Your task to perform on an android device: turn off data saver in the chrome app Image 0: 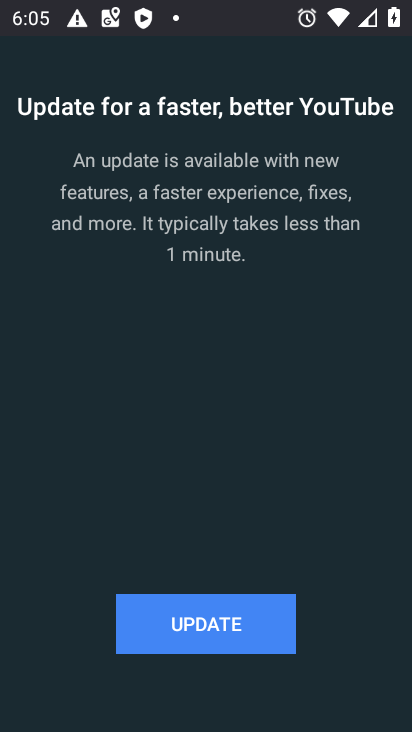
Step 0: press home button
Your task to perform on an android device: turn off data saver in the chrome app Image 1: 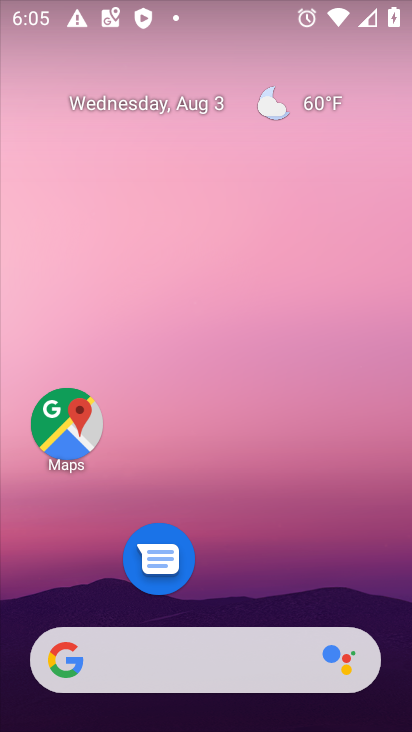
Step 1: drag from (205, 643) to (197, 341)
Your task to perform on an android device: turn off data saver in the chrome app Image 2: 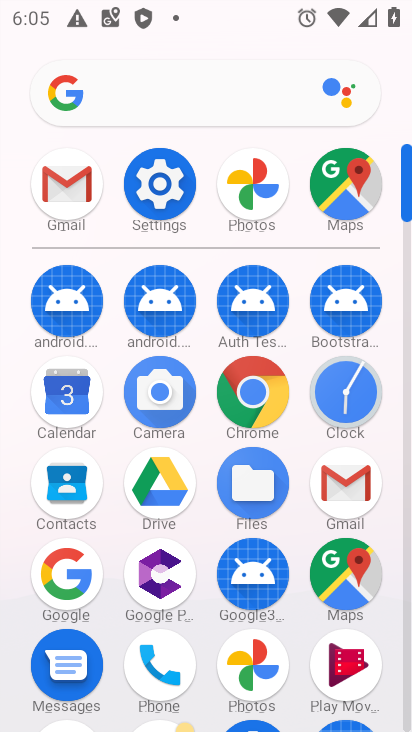
Step 2: click (257, 399)
Your task to perform on an android device: turn off data saver in the chrome app Image 3: 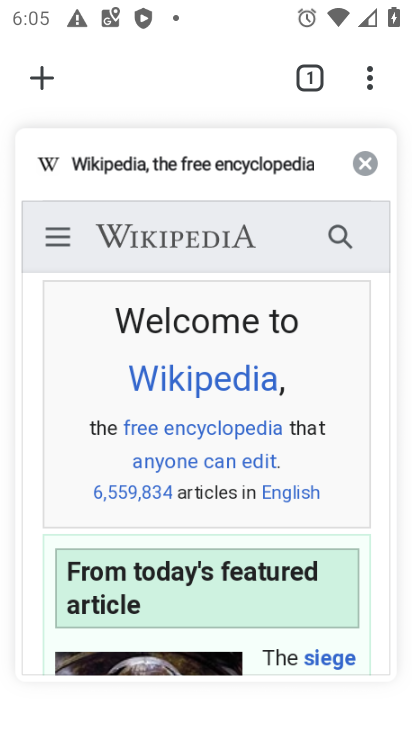
Step 3: click (372, 77)
Your task to perform on an android device: turn off data saver in the chrome app Image 4: 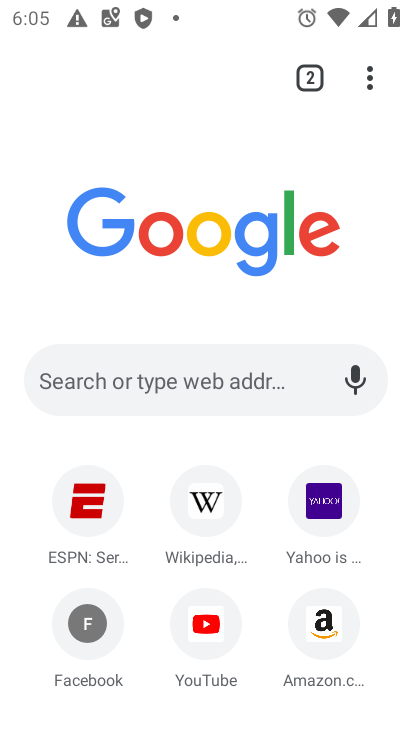
Step 4: click (377, 81)
Your task to perform on an android device: turn off data saver in the chrome app Image 5: 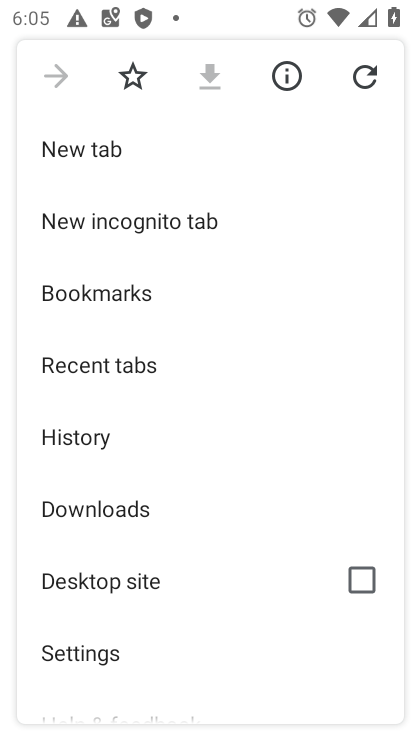
Step 5: click (92, 649)
Your task to perform on an android device: turn off data saver in the chrome app Image 6: 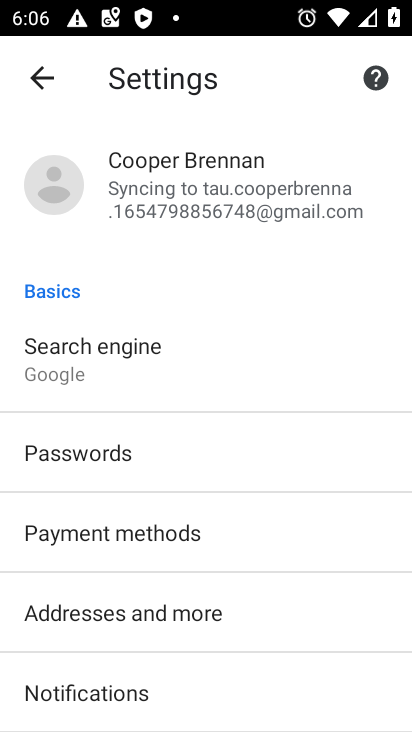
Step 6: drag from (148, 704) to (150, 206)
Your task to perform on an android device: turn off data saver in the chrome app Image 7: 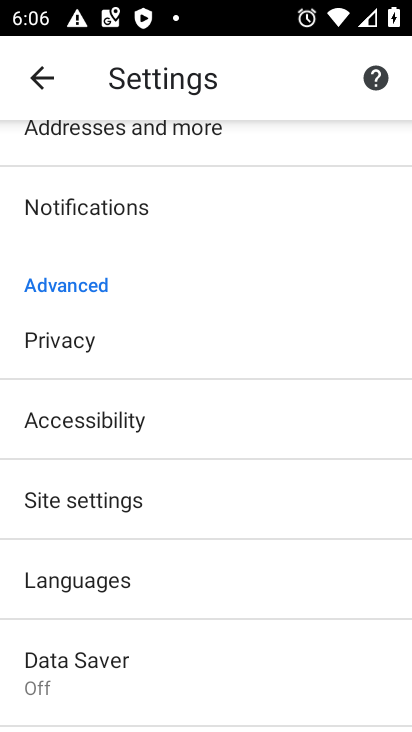
Step 7: click (75, 672)
Your task to perform on an android device: turn off data saver in the chrome app Image 8: 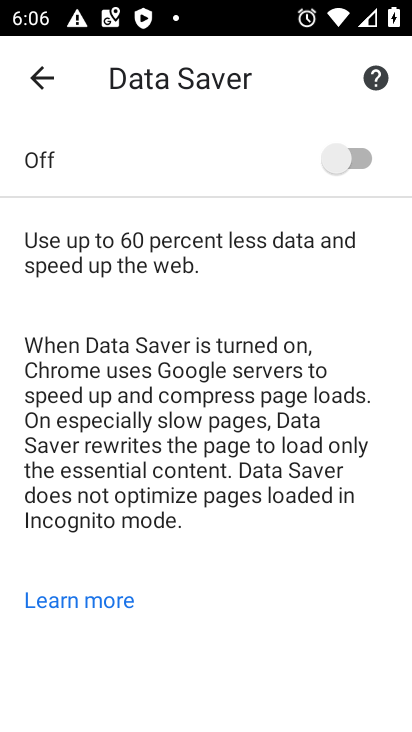
Step 8: task complete